Your task to perform on an android device: Turn on the flashlight Image 0: 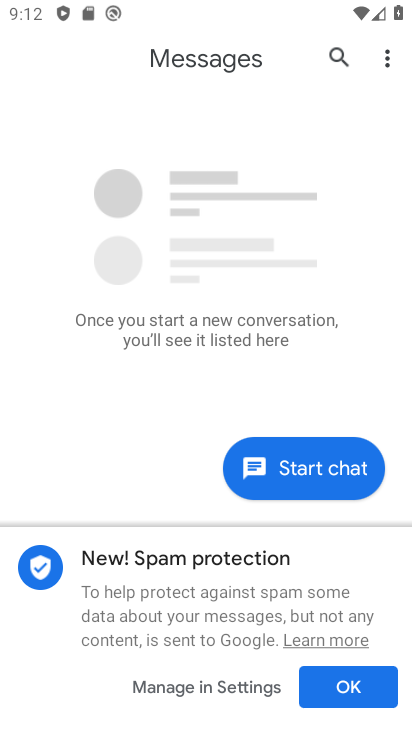
Step 0: press home button
Your task to perform on an android device: Turn on the flashlight Image 1: 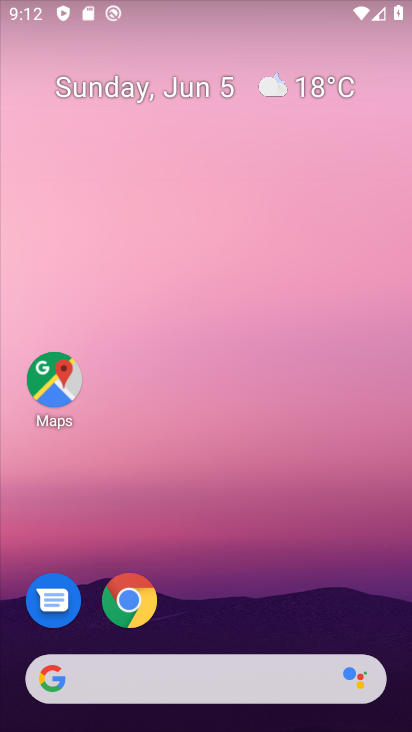
Step 1: drag from (330, 570) to (182, 101)
Your task to perform on an android device: Turn on the flashlight Image 2: 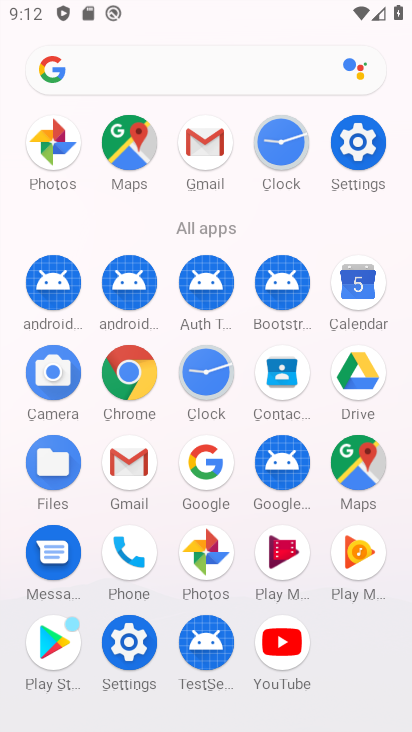
Step 2: click (367, 132)
Your task to perform on an android device: Turn on the flashlight Image 3: 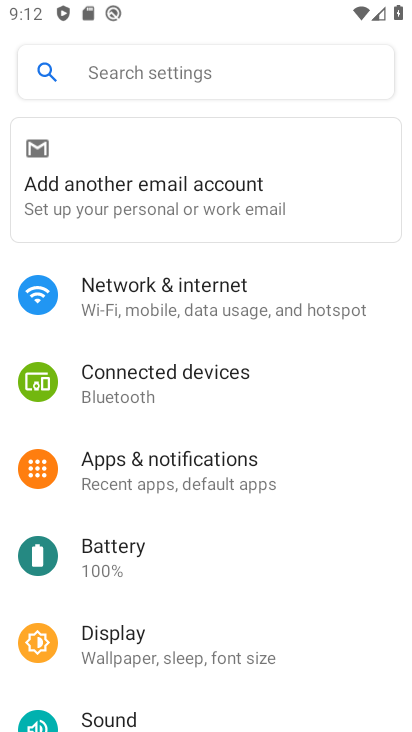
Step 3: drag from (226, 628) to (248, 242)
Your task to perform on an android device: Turn on the flashlight Image 4: 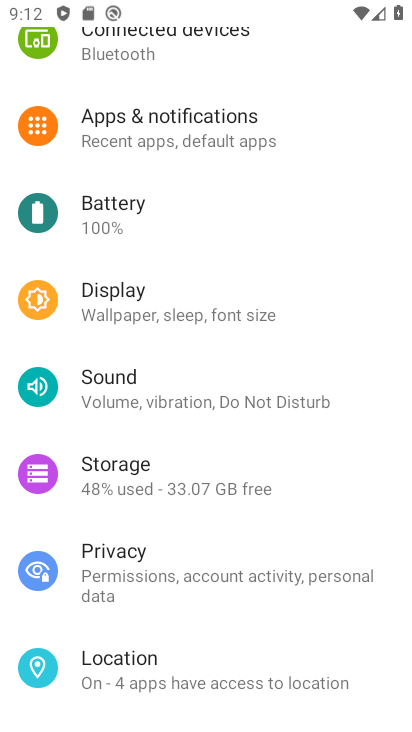
Step 4: click (156, 323)
Your task to perform on an android device: Turn on the flashlight Image 5: 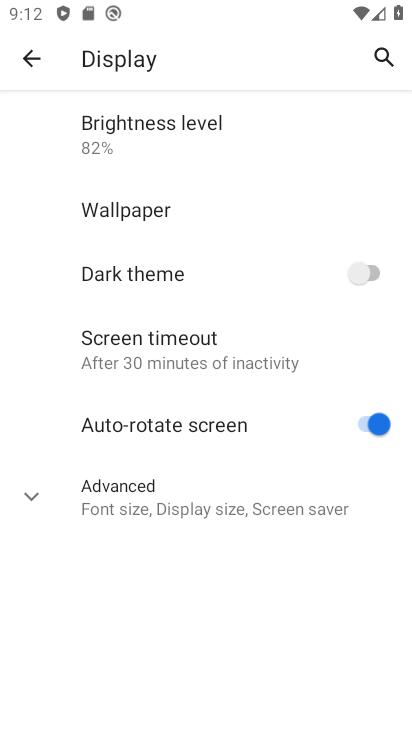
Step 5: task complete